Your task to perform on an android device: Open location settings Image 0: 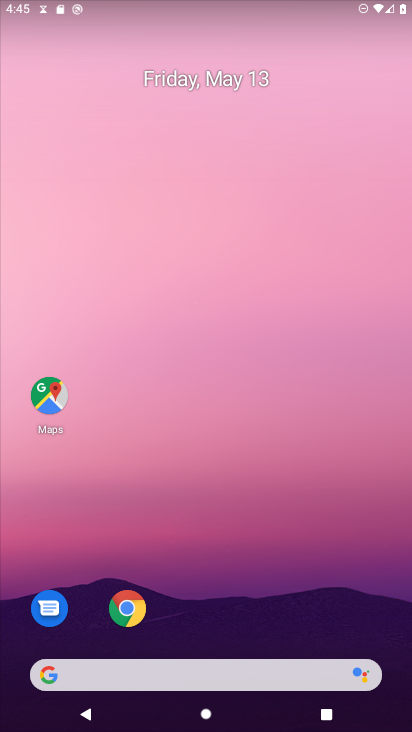
Step 0: drag from (215, 566) to (259, 17)
Your task to perform on an android device: Open location settings Image 1: 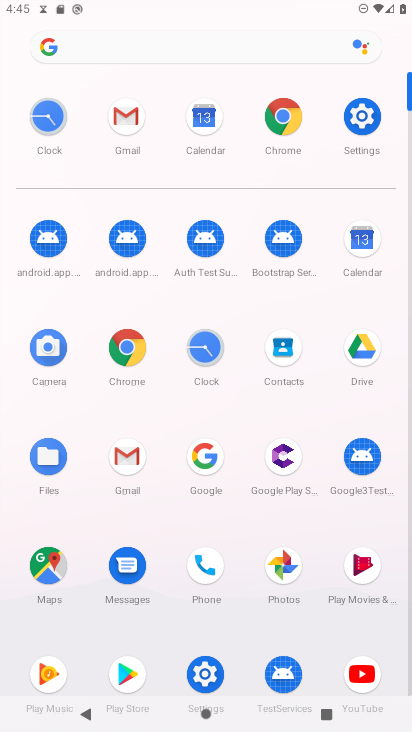
Step 1: click (375, 110)
Your task to perform on an android device: Open location settings Image 2: 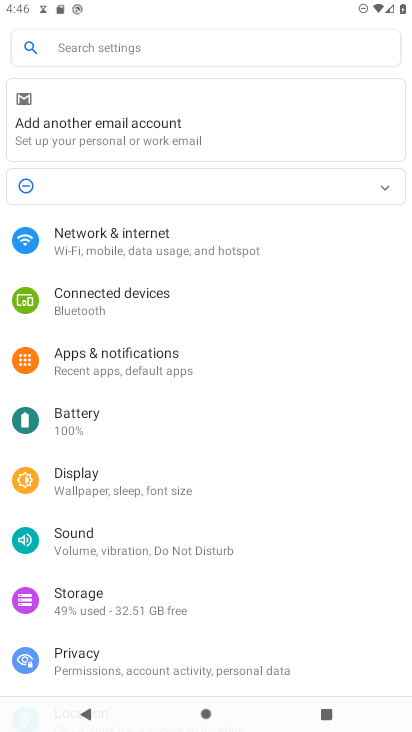
Step 2: drag from (195, 652) to (175, 198)
Your task to perform on an android device: Open location settings Image 3: 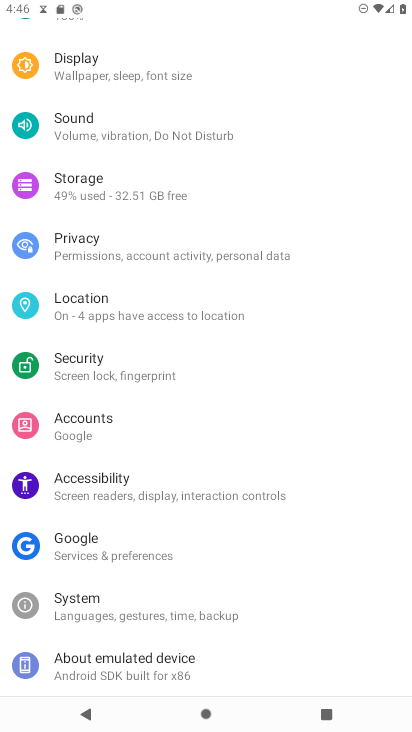
Step 3: click (114, 309)
Your task to perform on an android device: Open location settings Image 4: 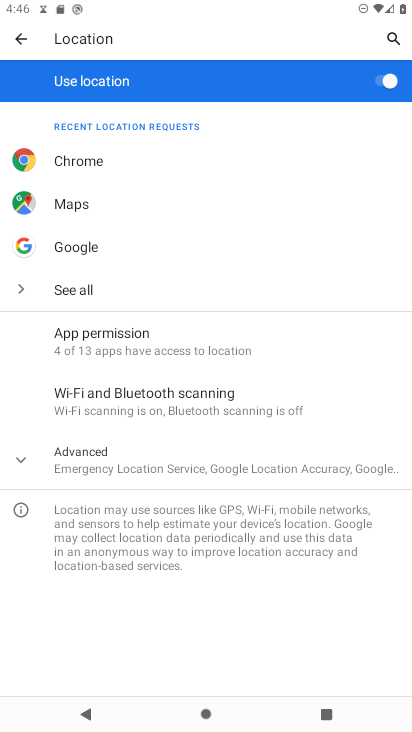
Step 4: task complete